Your task to perform on an android device: What's the weather going to be tomorrow? Image 0: 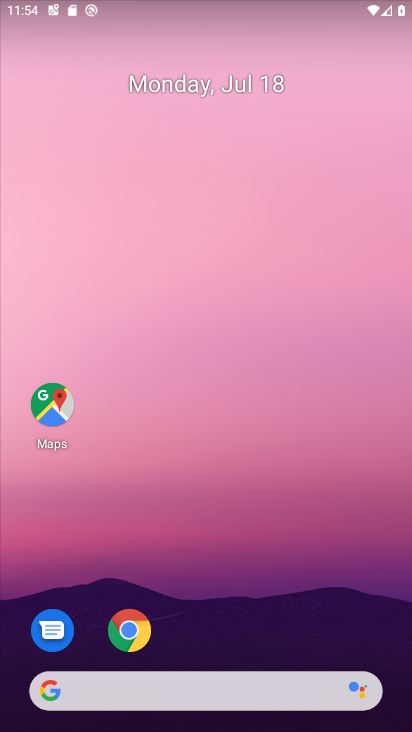
Step 0: click (165, 682)
Your task to perform on an android device: What's the weather going to be tomorrow? Image 1: 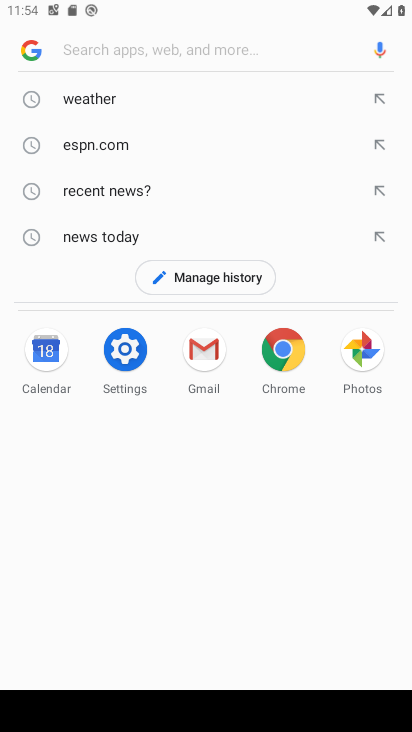
Step 1: click (98, 94)
Your task to perform on an android device: What's the weather going to be tomorrow? Image 2: 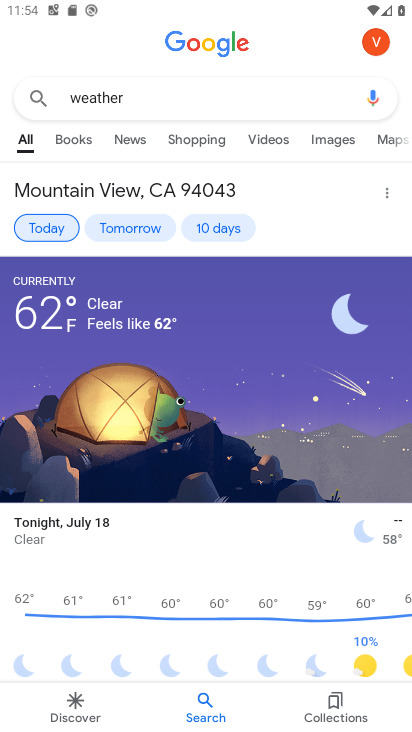
Step 2: click (107, 229)
Your task to perform on an android device: What's the weather going to be tomorrow? Image 3: 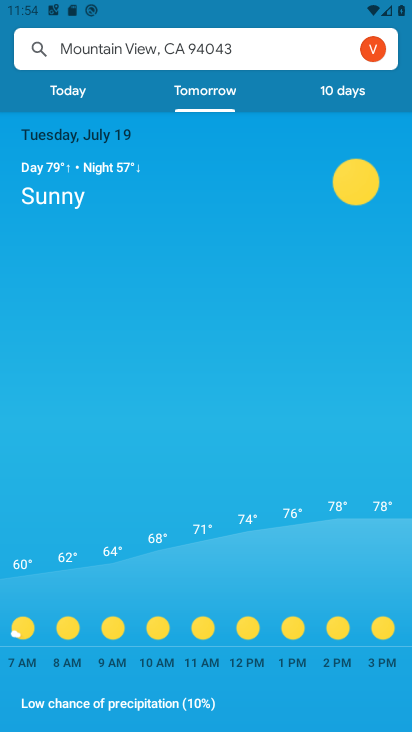
Step 3: task complete